Your task to perform on an android device: Search for seafood restaurants on Google Maps Image 0: 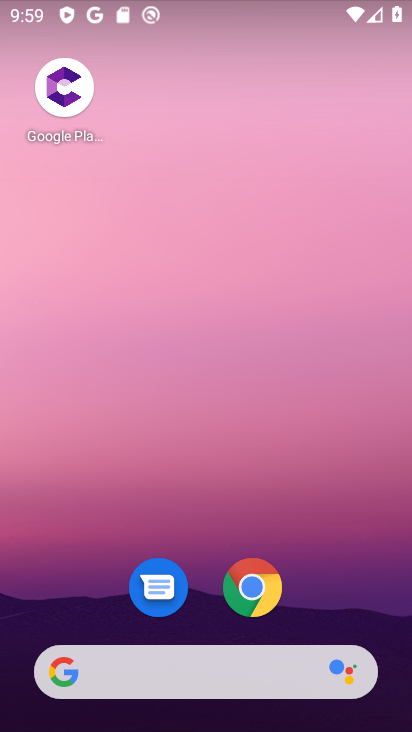
Step 0: drag from (363, 525) to (227, 35)
Your task to perform on an android device: Search for seafood restaurants on Google Maps Image 1: 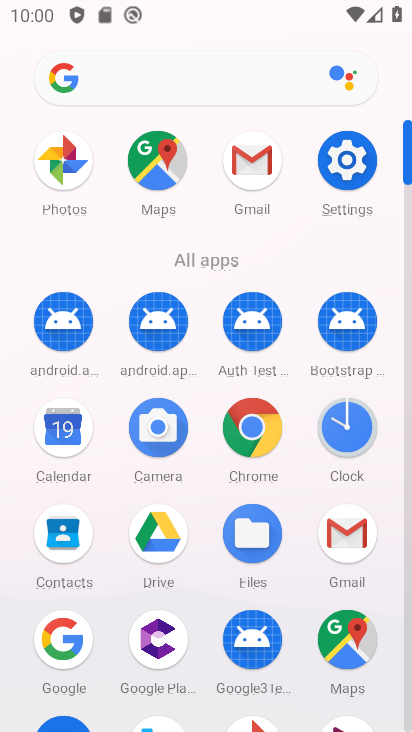
Step 1: click (158, 171)
Your task to perform on an android device: Search for seafood restaurants on Google Maps Image 2: 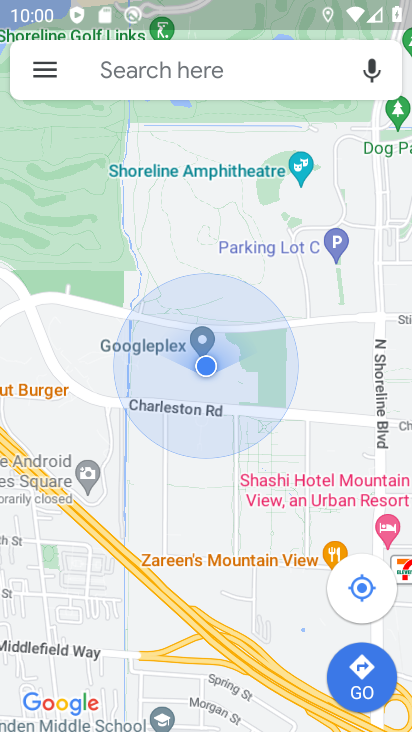
Step 2: click (169, 76)
Your task to perform on an android device: Search for seafood restaurants on Google Maps Image 3: 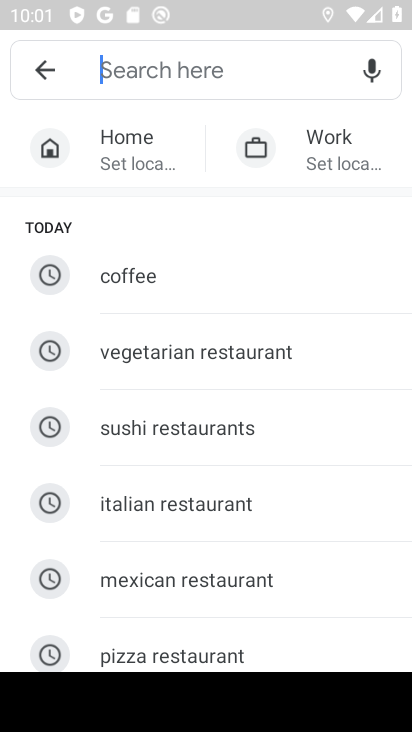
Step 3: type "seafood restaurants"
Your task to perform on an android device: Search for seafood restaurants on Google Maps Image 4: 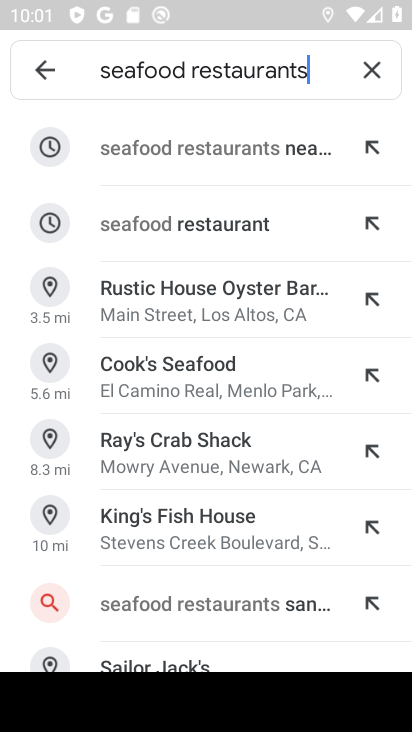
Step 4: click (214, 222)
Your task to perform on an android device: Search for seafood restaurants on Google Maps Image 5: 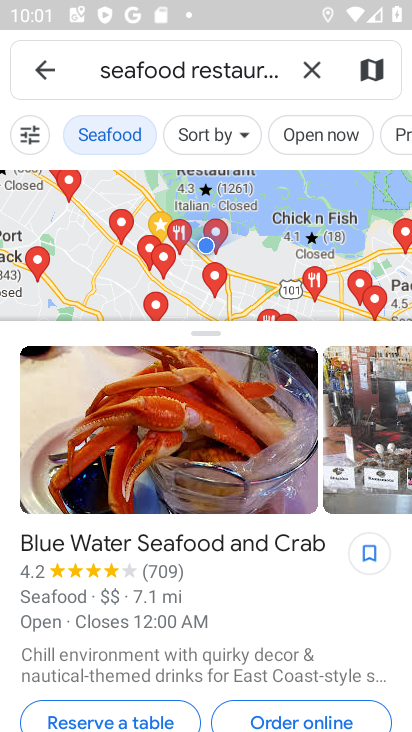
Step 5: task complete